Your task to perform on an android device: turn on showing notifications on the lock screen Image 0: 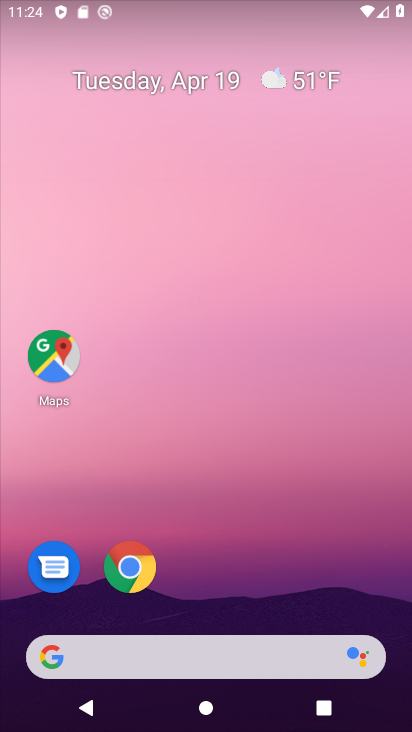
Step 0: drag from (202, 581) to (248, 11)
Your task to perform on an android device: turn on showing notifications on the lock screen Image 1: 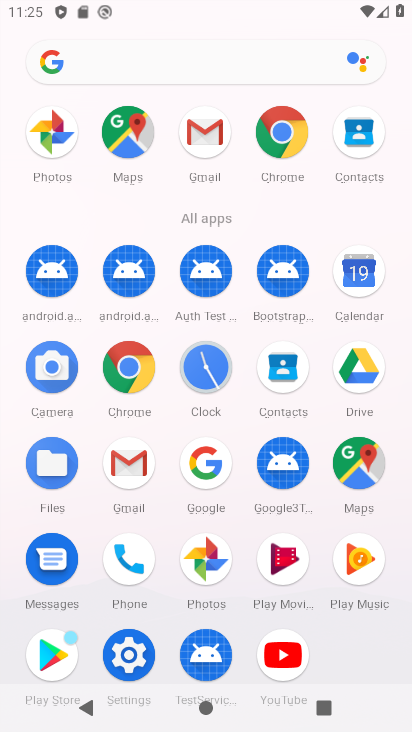
Step 1: click (128, 652)
Your task to perform on an android device: turn on showing notifications on the lock screen Image 2: 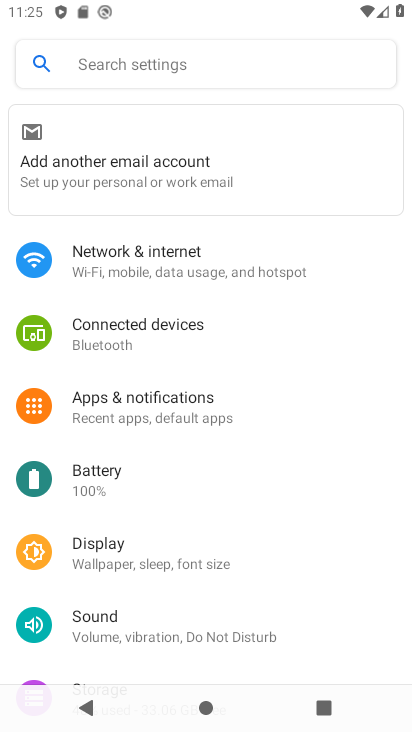
Step 2: click (147, 411)
Your task to perform on an android device: turn on showing notifications on the lock screen Image 3: 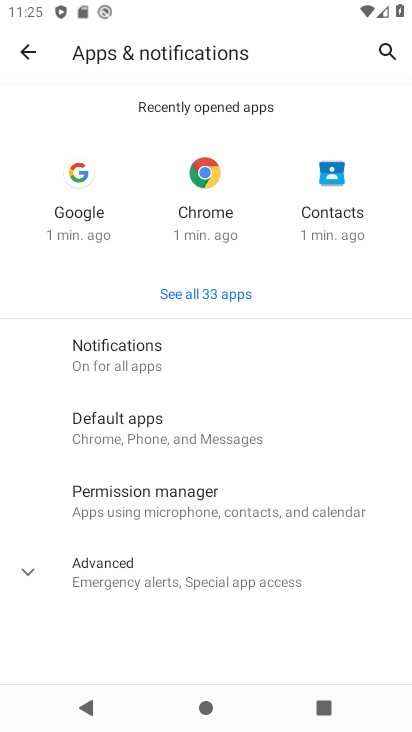
Step 3: click (129, 350)
Your task to perform on an android device: turn on showing notifications on the lock screen Image 4: 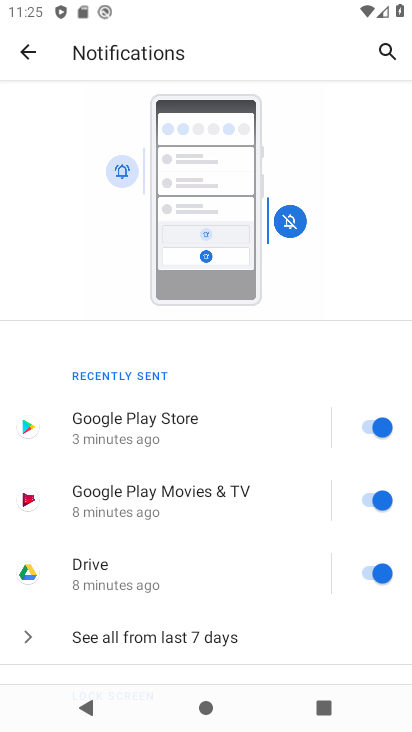
Step 4: drag from (150, 453) to (259, 129)
Your task to perform on an android device: turn on showing notifications on the lock screen Image 5: 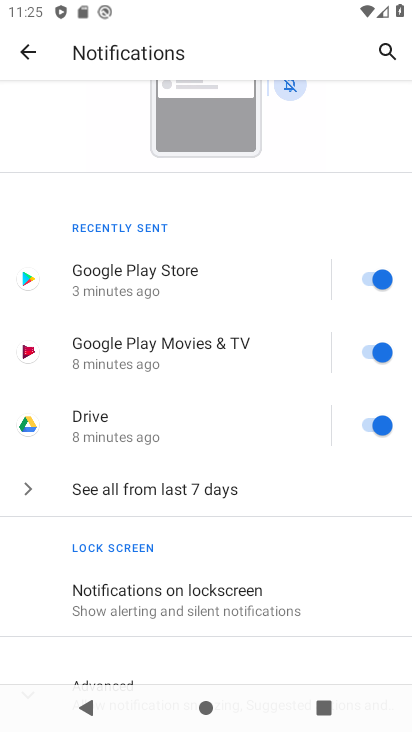
Step 5: drag from (174, 564) to (210, 434)
Your task to perform on an android device: turn on showing notifications on the lock screen Image 6: 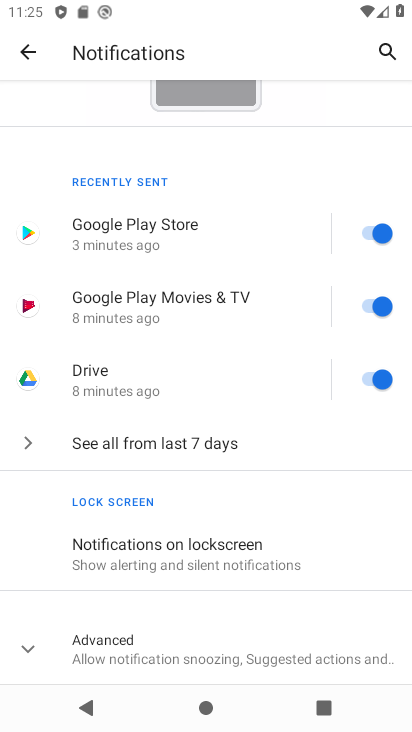
Step 6: click (147, 561)
Your task to perform on an android device: turn on showing notifications on the lock screen Image 7: 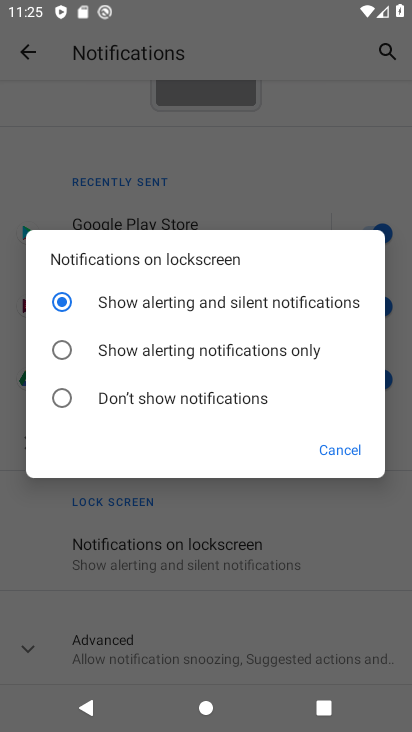
Step 7: task complete